Your task to perform on an android device: change your default location settings in chrome Image 0: 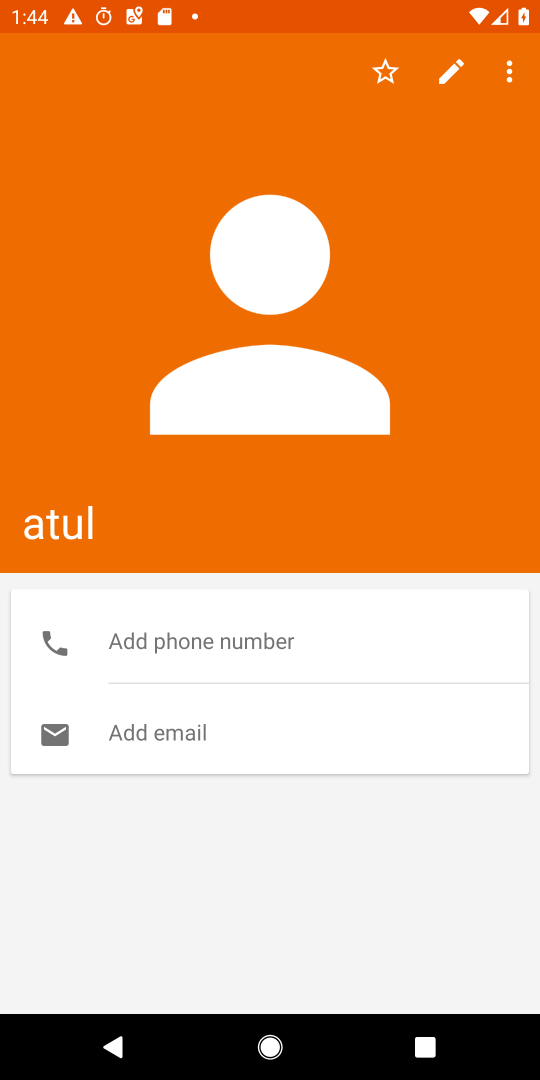
Step 0: press home button
Your task to perform on an android device: change your default location settings in chrome Image 1: 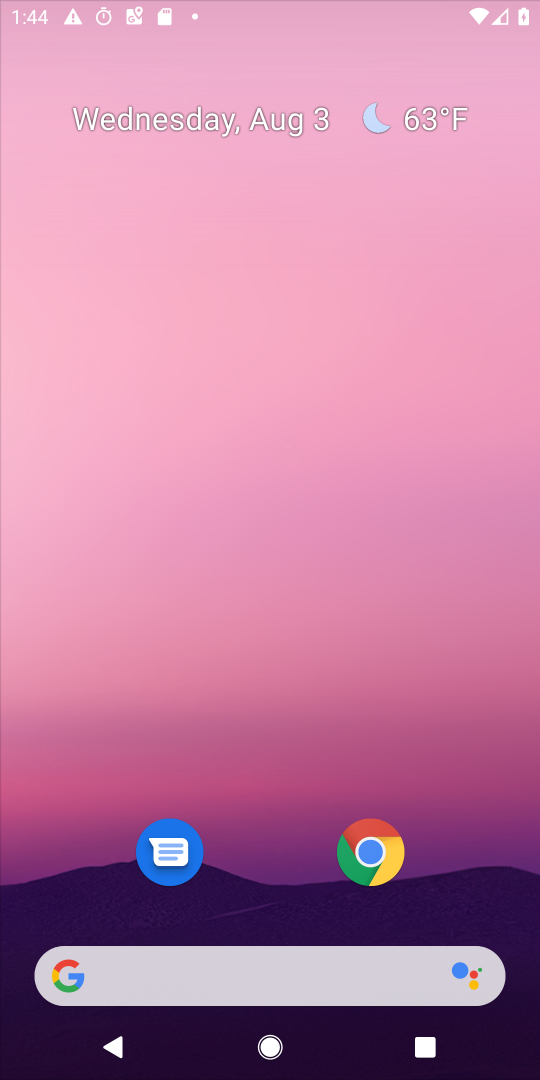
Step 1: drag from (485, 852) to (173, 10)
Your task to perform on an android device: change your default location settings in chrome Image 2: 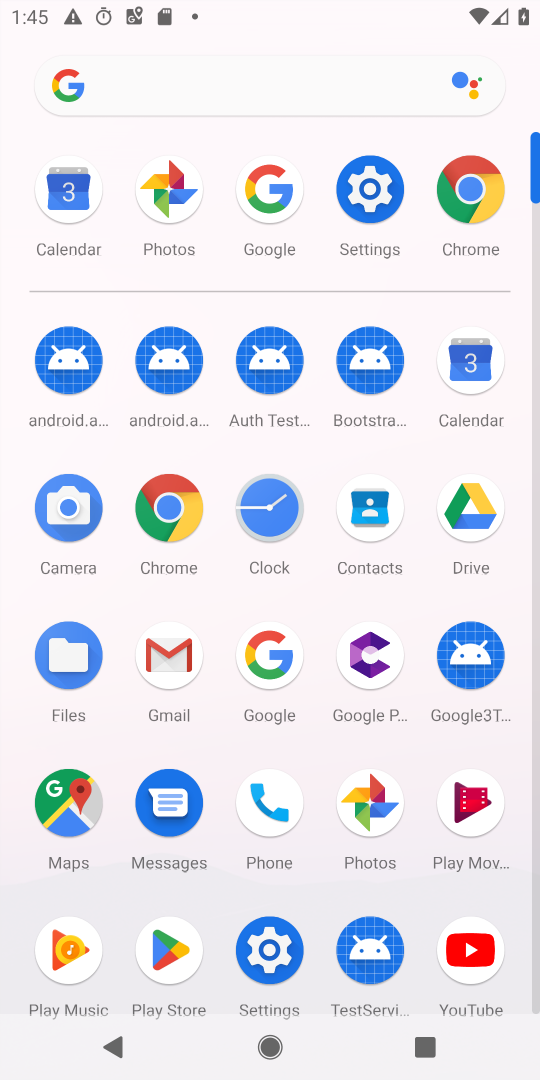
Step 2: click (151, 507)
Your task to perform on an android device: change your default location settings in chrome Image 3: 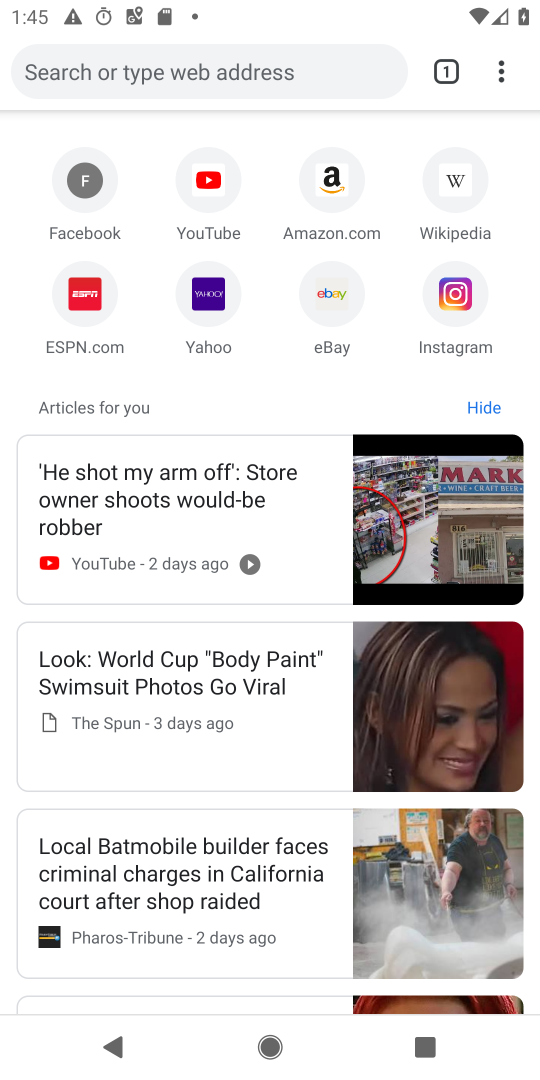
Step 3: click (498, 66)
Your task to perform on an android device: change your default location settings in chrome Image 4: 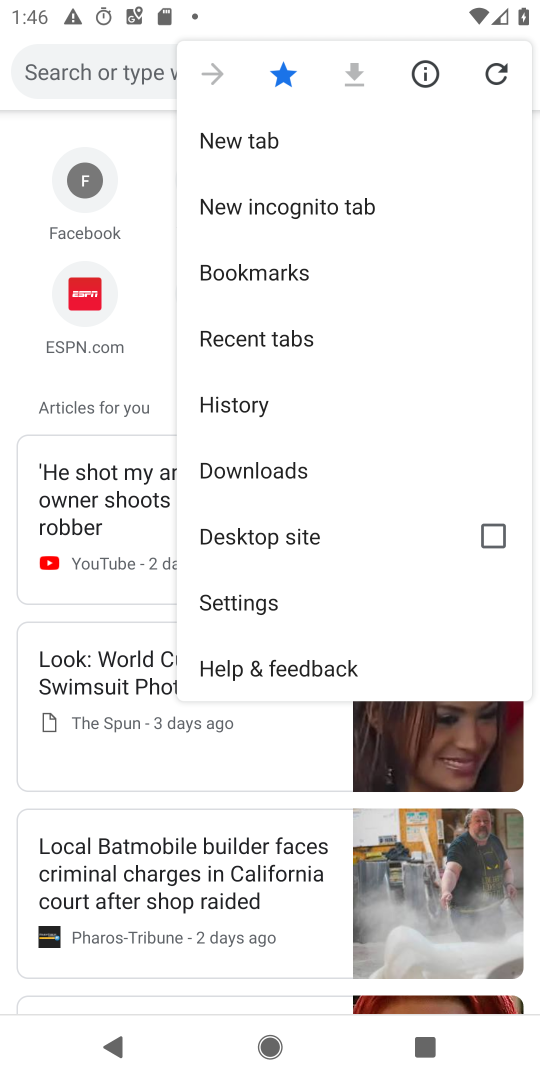
Step 4: click (280, 598)
Your task to perform on an android device: change your default location settings in chrome Image 5: 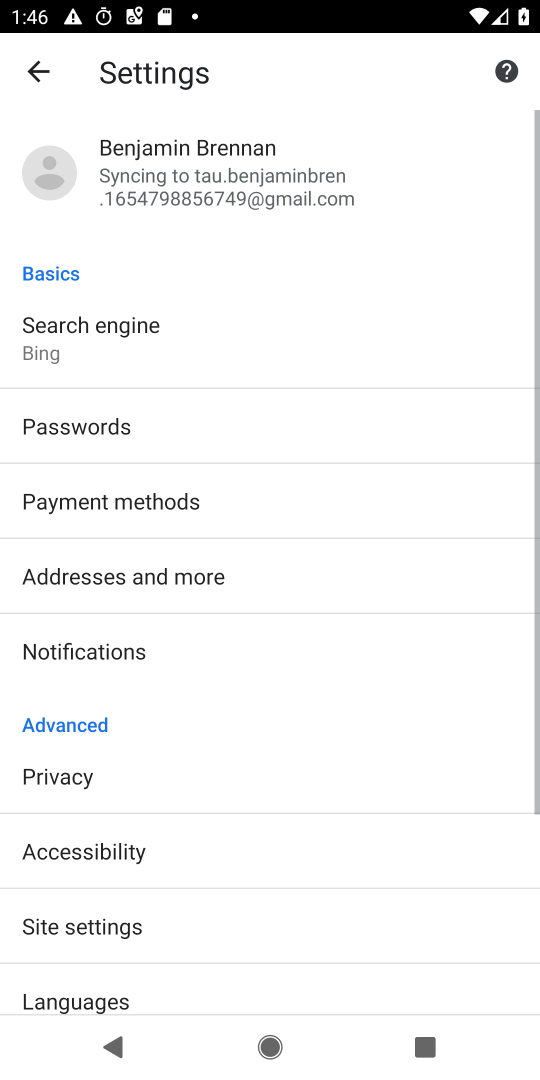
Step 5: click (61, 347)
Your task to perform on an android device: change your default location settings in chrome Image 6: 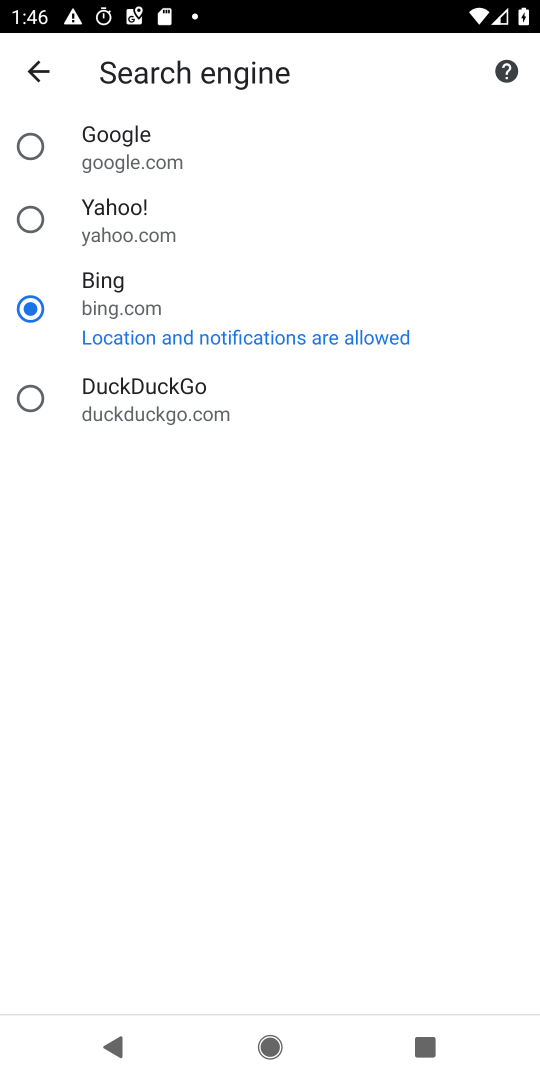
Step 6: click (121, 156)
Your task to perform on an android device: change your default location settings in chrome Image 7: 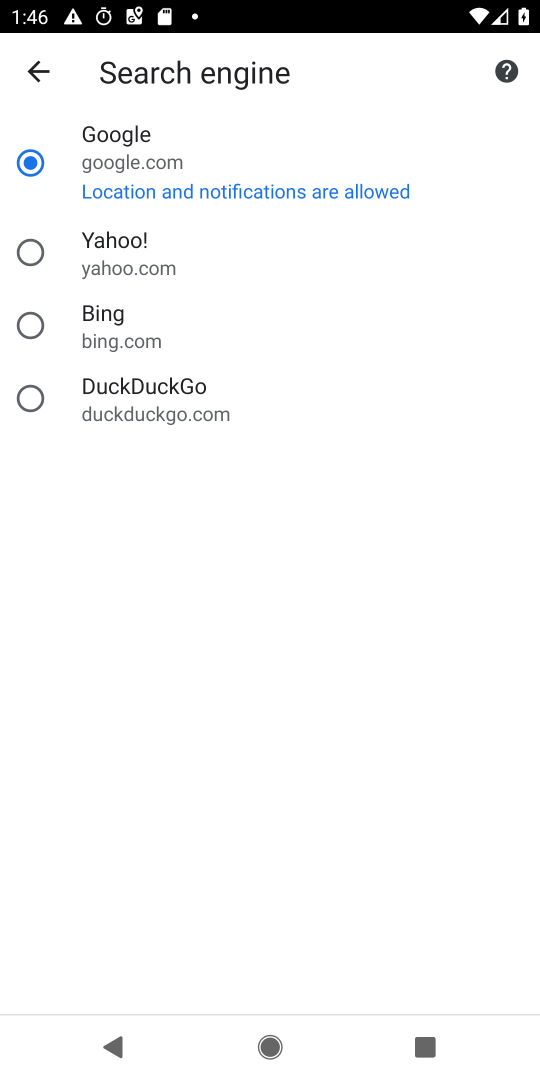
Step 7: task complete